Your task to perform on an android device: Is it going to rain tomorrow? Image 0: 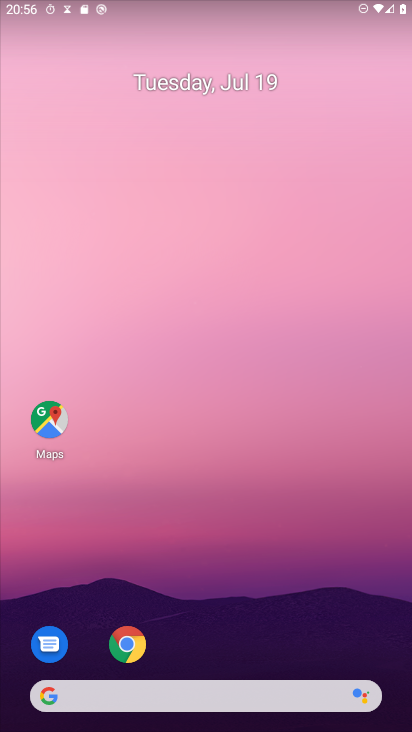
Step 0: click (96, 690)
Your task to perform on an android device: Is it going to rain tomorrow? Image 1: 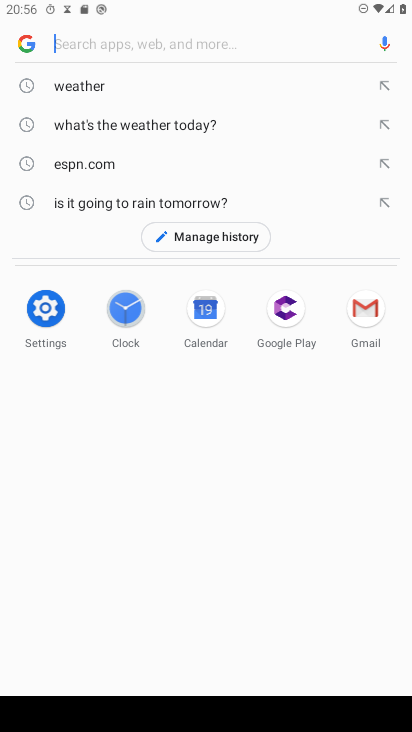
Step 1: type "Is it going to rain tomorrow?"
Your task to perform on an android device: Is it going to rain tomorrow? Image 2: 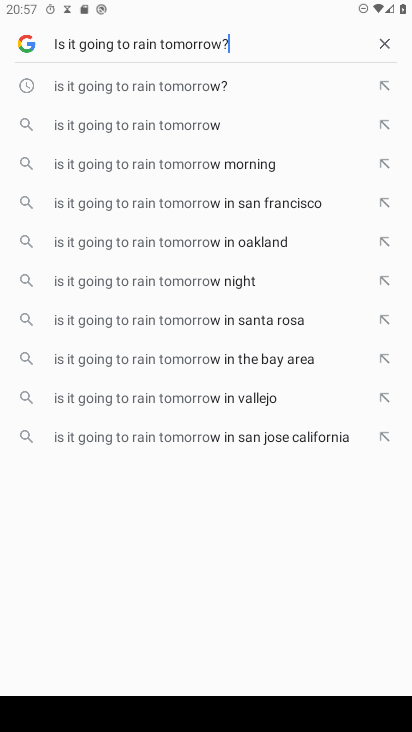
Step 2: type ""
Your task to perform on an android device: Is it going to rain tomorrow? Image 3: 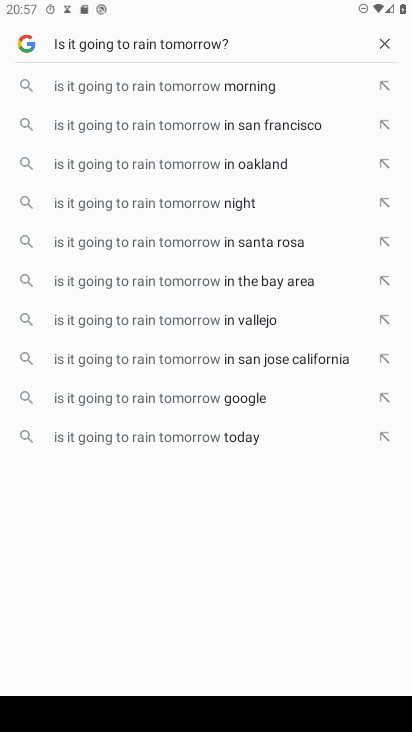
Step 3: type ""
Your task to perform on an android device: Is it going to rain tomorrow? Image 4: 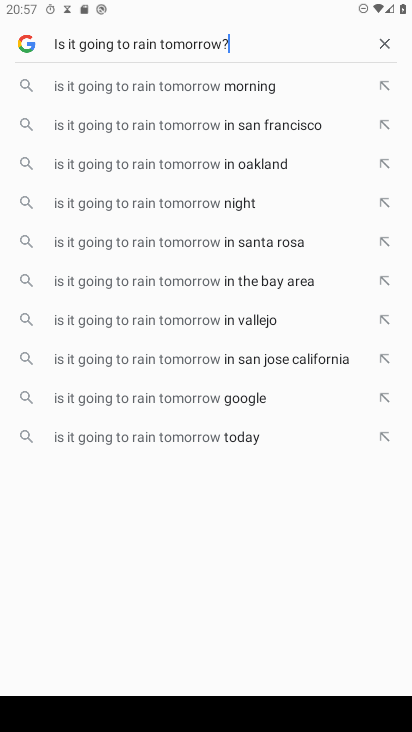
Step 4: type ""
Your task to perform on an android device: Is it going to rain tomorrow? Image 5: 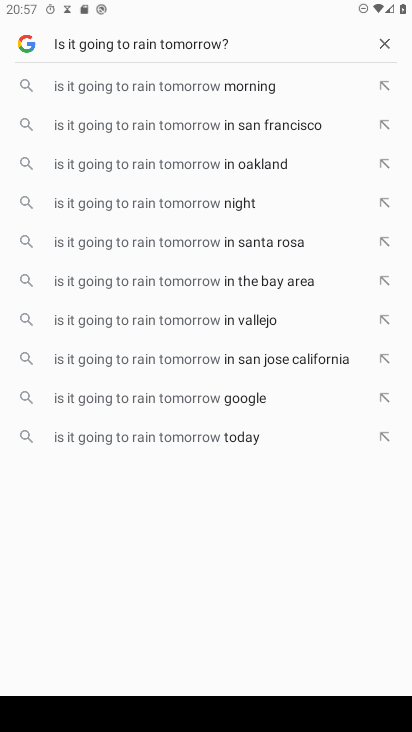
Step 5: type ""
Your task to perform on an android device: Is it going to rain tomorrow? Image 6: 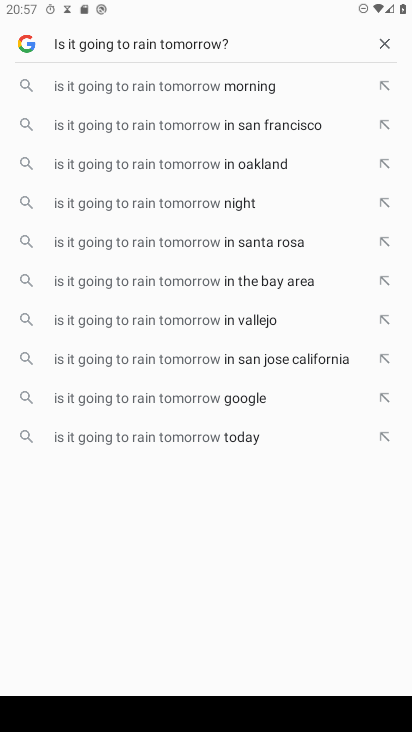
Step 6: type ""
Your task to perform on an android device: Is it going to rain tomorrow? Image 7: 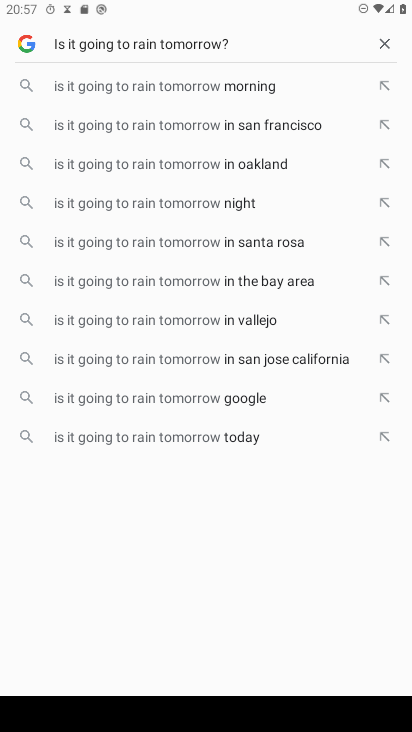
Step 7: task complete